Your task to perform on an android device: Go to CNN.com Image 0: 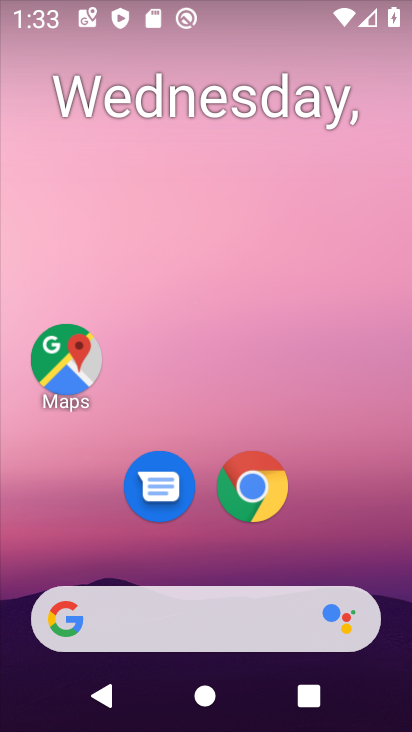
Step 0: click (251, 493)
Your task to perform on an android device: Go to CNN.com Image 1: 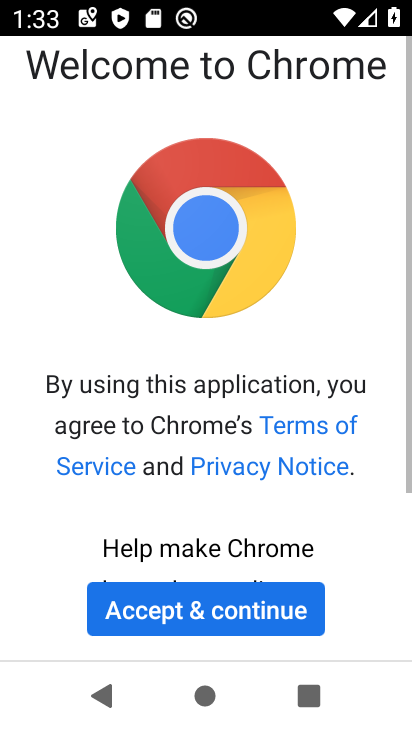
Step 1: click (219, 596)
Your task to perform on an android device: Go to CNN.com Image 2: 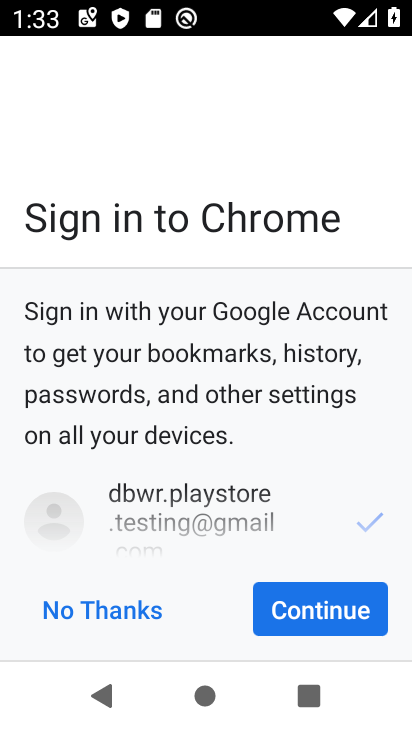
Step 2: click (347, 608)
Your task to perform on an android device: Go to CNN.com Image 3: 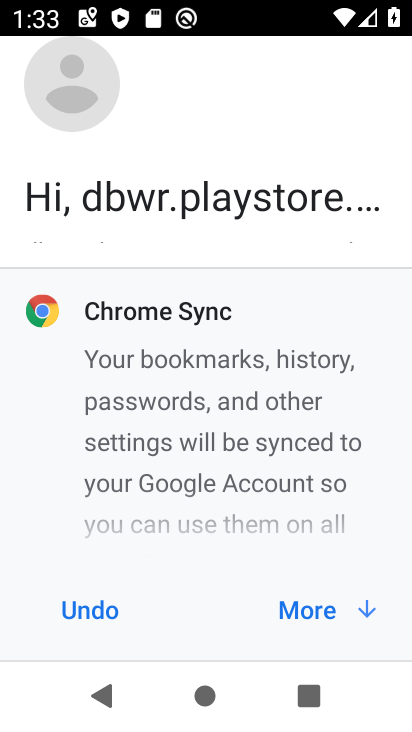
Step 3: click (334, 619)
Your task to perform on an android device: Go to CNN.com Image 4: 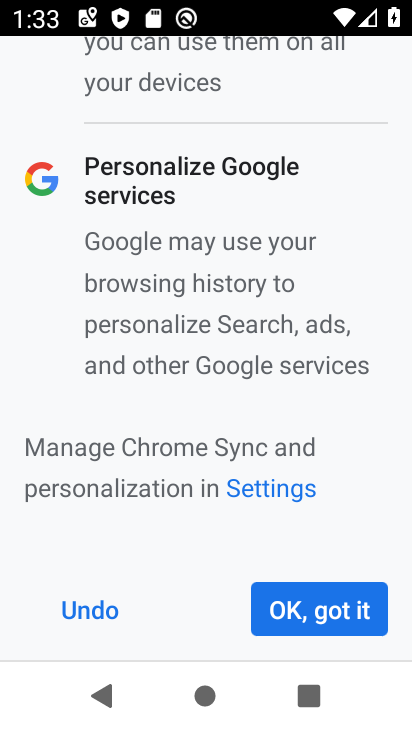
Step 4: click (328, 614)
Your task to perform on an android device: Go to CNN.com Image 5: 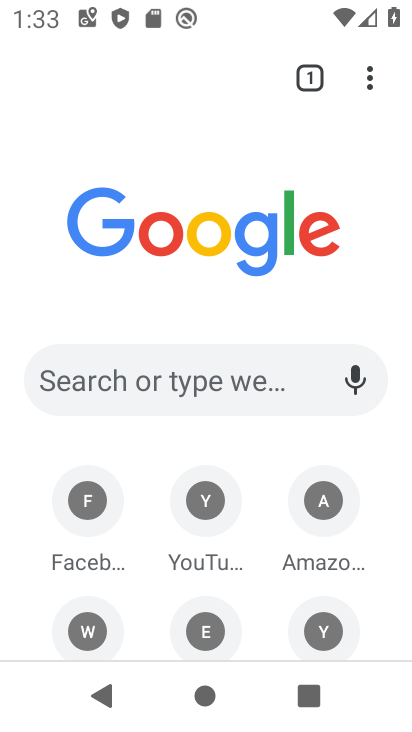
Step 5: click (309, 75)
Your task to perform on an android device: Go to CNN.com Image 6: 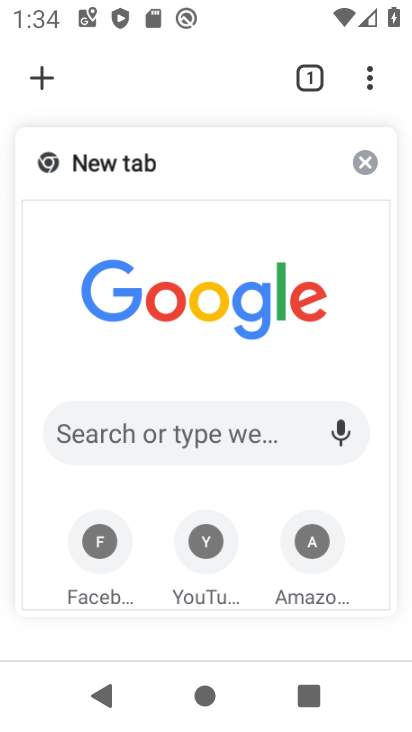
Step 6: click (51, 79)
Your task to perform on an android device: Go to CNN.com Image 7: 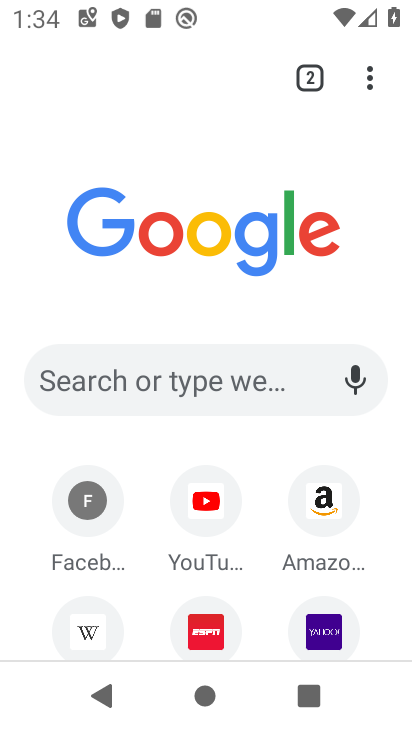
Step 7: click (138, 388)
Your task to perform on an android device: Go to CNN.com Image 8: 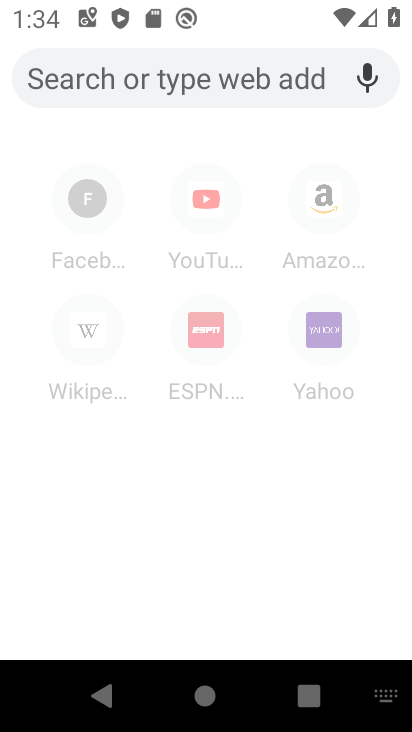
Step 8: type "cnn.com"
Your task to perform on an android device: Go to CNN.com Image 9: 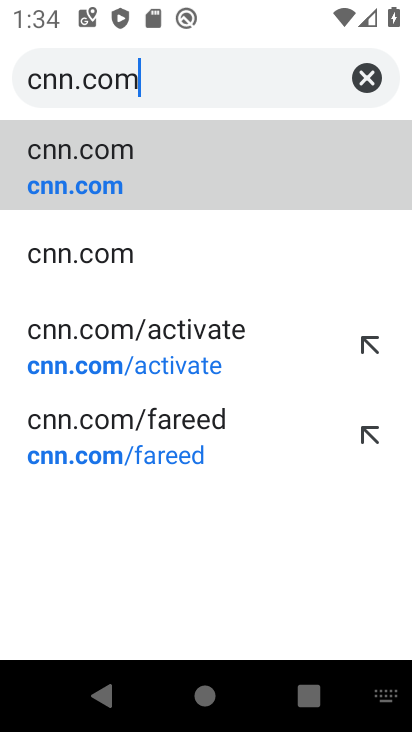
Step 9: click (202, 174)
Your task to perform on an android device: Go to CNN.com Image 10: 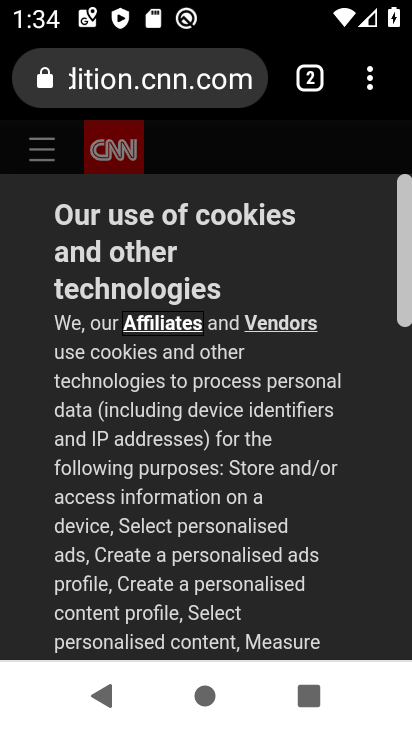
Step 10: task complete